Your task to perform on an android device: Open the phone app and click the voicemail tab. Image 0: 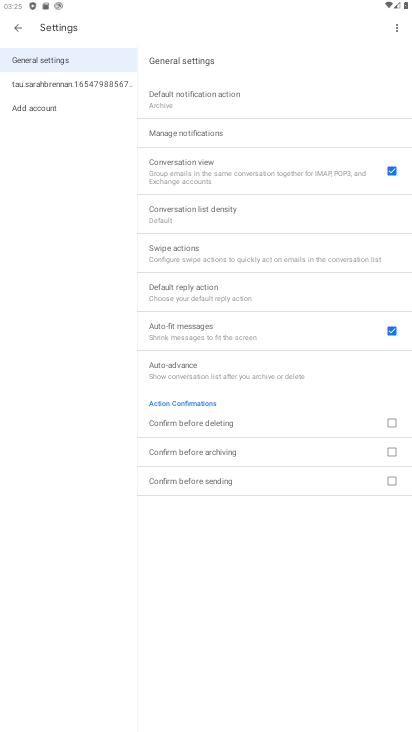
Step 0: press home button
Your task to perform on an android device: Open the phone app and click the voicemail tab. Image 1: 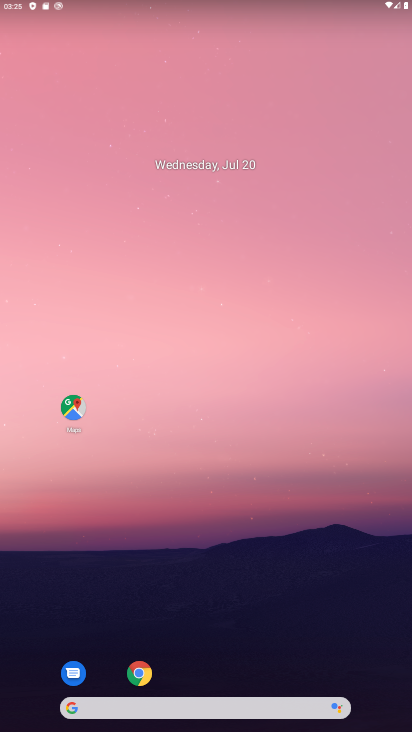
Step 1: drag from (288, 633) to (274, 185)
Your task to perform on an android device: Open the phone app and click the voicemail tab. Image 2: 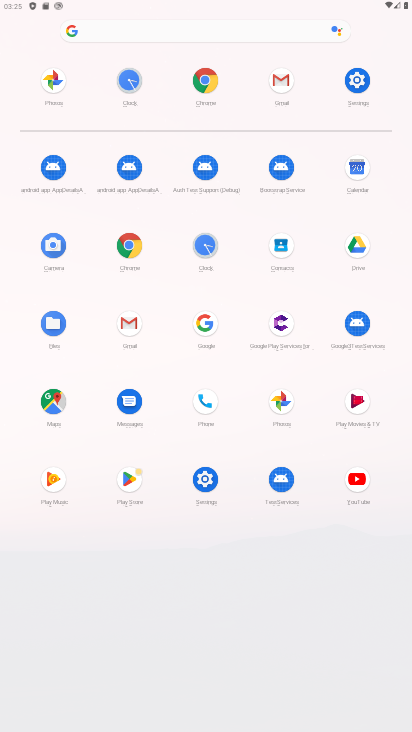
Step 2: click (222, 391)
Your task to perform on an android device: Open the phone app and click the voicemail tab. Image 3: 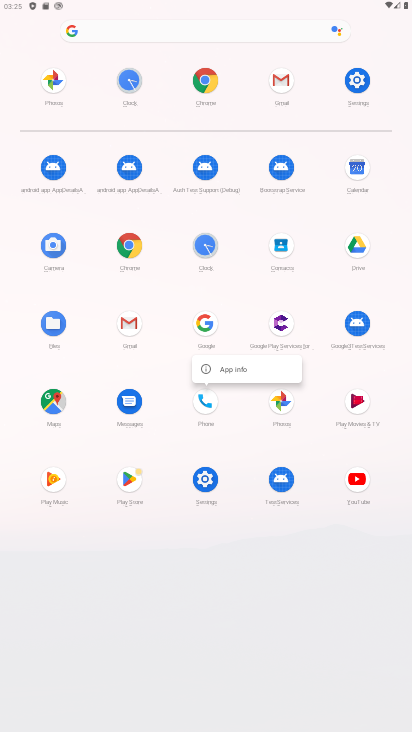
Step 3: click (217, 402)
Your task to perform on an android device: Open the phone app and click the voicemail tab. Image 4: 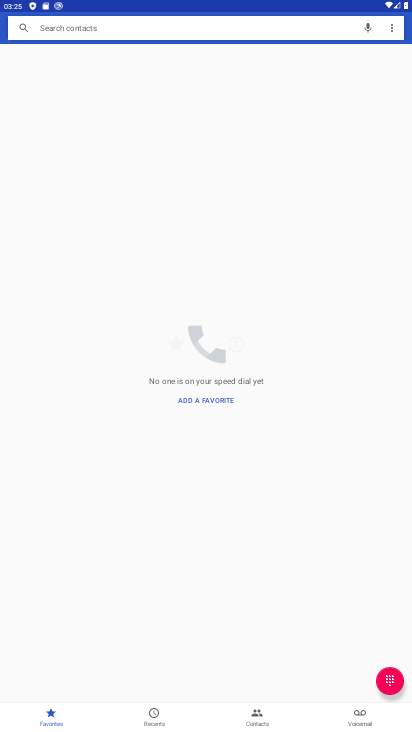
Step 4: click (358, 711)
Your task to perform on an android device: Open the phone app and click the voicemail tab. Image 5: 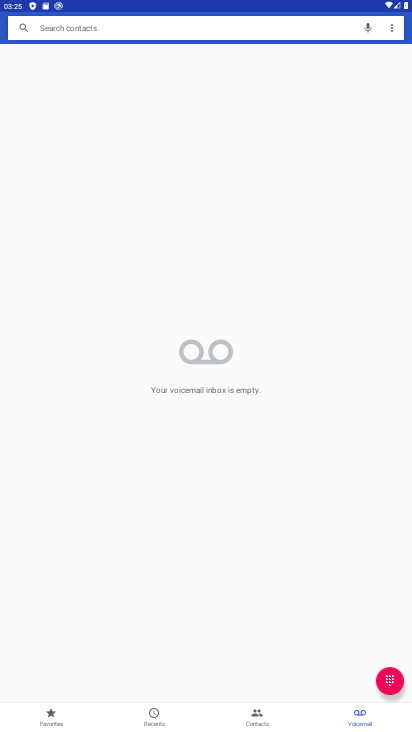
Step 5: task complete